Your task to perform on an android device: Go to internet settings Image 0: 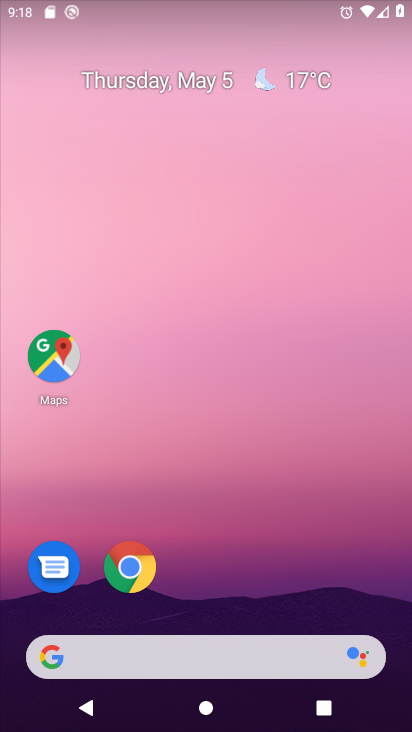
Step 0: drag from (221, 579) to (236, 39)
Your task to perform on an android device: Go to internet settings Image 1: 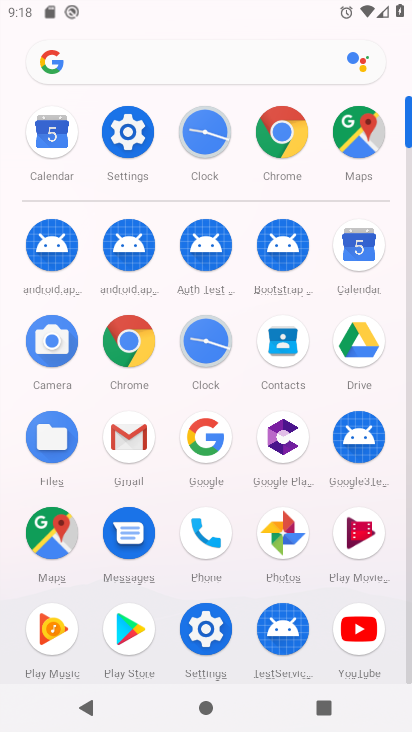
Step 1: click (138, 135)
Your task to perform on an android device: Go to internet settings Image 2: 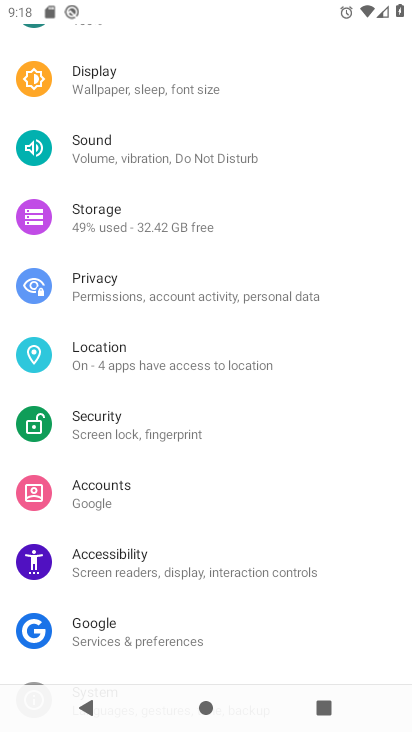
Step 2: drag from (209, 268) to (262, 641)
Your task to perform on an android device: Go to internet settings Image 3: 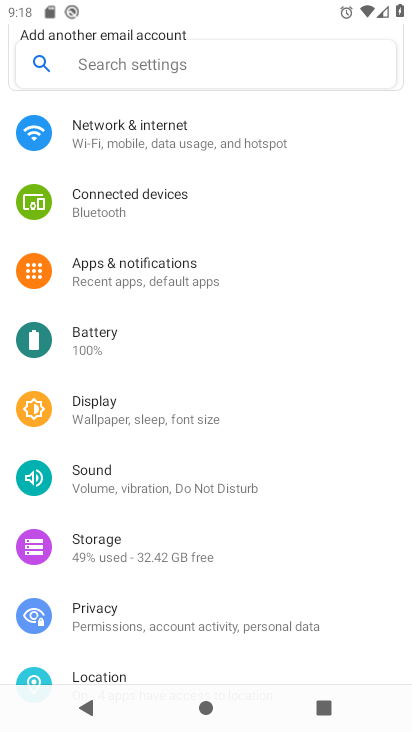
Step 3: click (224, 137)
Your task to perform on an android device: Go to internet settings Image 4: 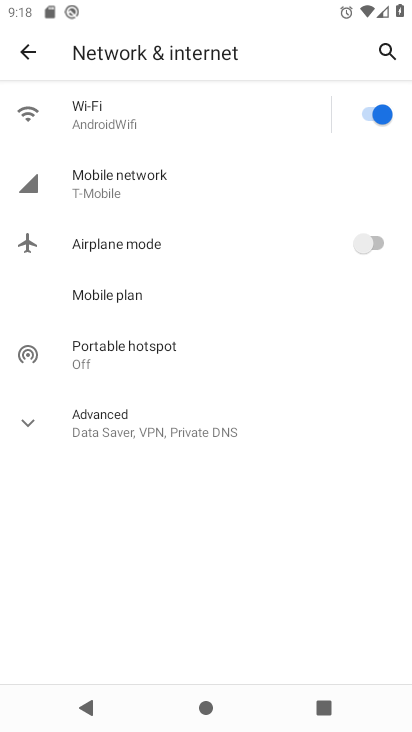
Step 4: task complete